Your task to perform on an android device: Open Google Chrome and click the shortcut for Amazon.com Image 0: 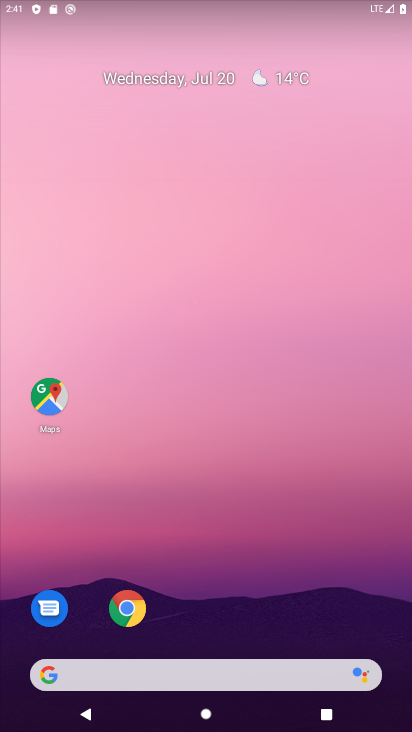
Step 0: drag from (160, 640) to (138, 62)
Your task to perform on an android device: Open Google Chrome and click the shortcut for Amazon.com Image 1: 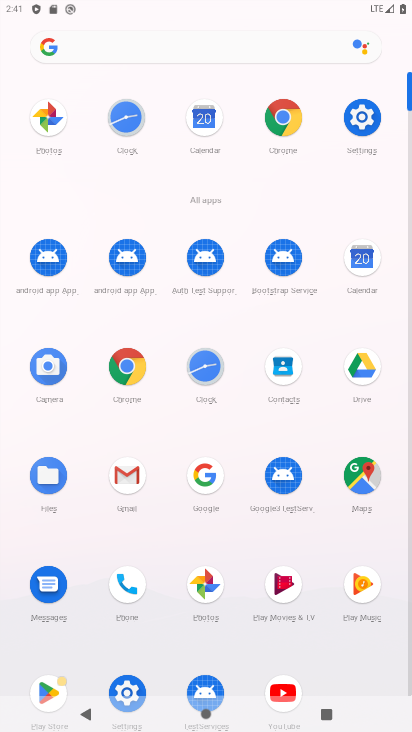
Step 1: click (288, 104)
Your task to perform on an android device: Open Google Chrome and click the shortcut for Amazon.com Image 2: 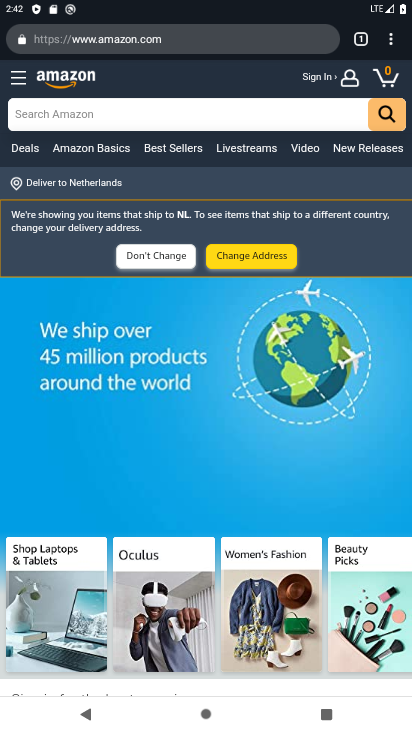
Step 2: task complete